Your task to perform on an android device: Open calendar and show me the third week of next month Image 0: 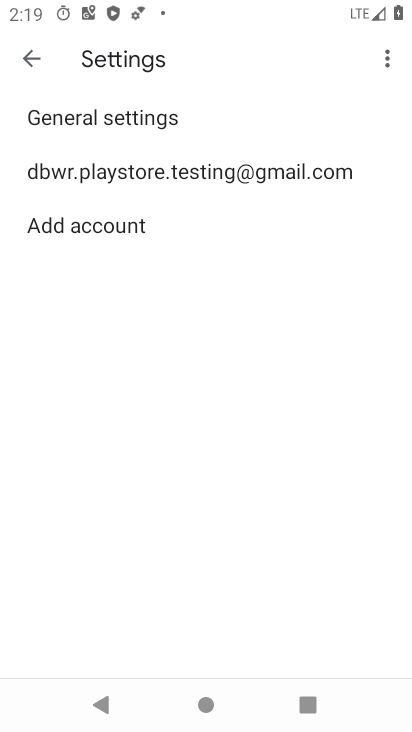
Step 0: press home button
Your task to perform on an android device: Open calendar and show me the third week of next month Image 1: 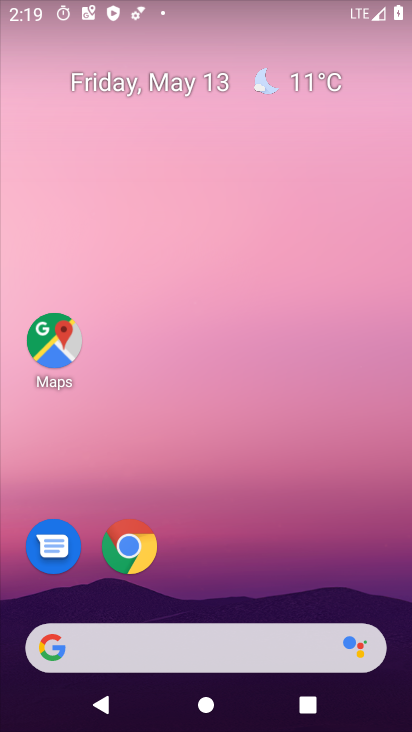
Step 1: drag from (127, 641) to (177, 168)
Your task to perform on an android device: Open calendar and show me the third week of next month Image 2: 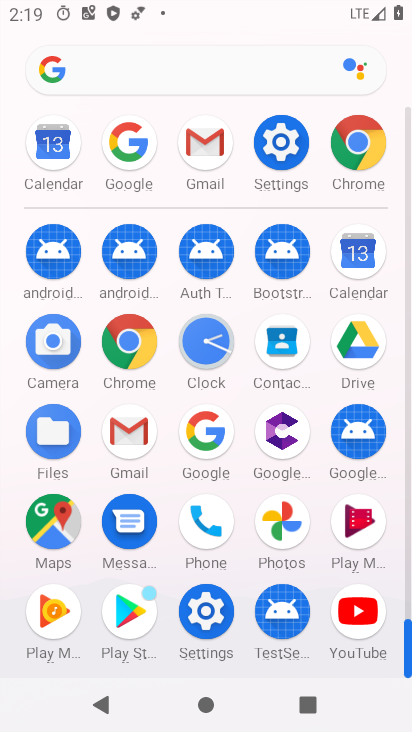
Step 2: click (356, 261)
Your task to perform on an android device: Open calendar and show me the third week of next month Image 3: 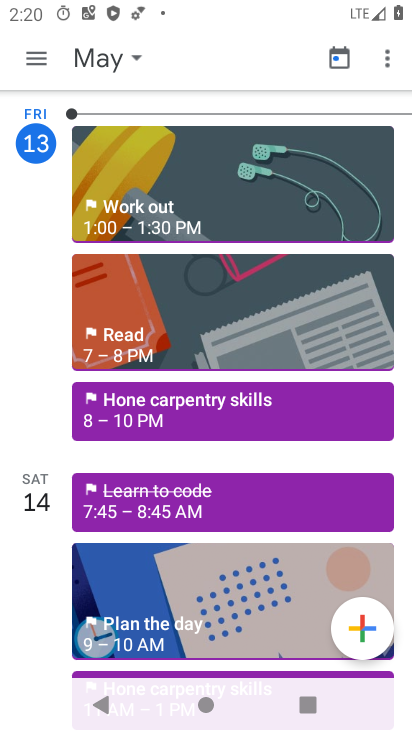
Step 3: click (107, 69)
Your task to perform on an android device: Open calendar and show me the third week of next month Image 4: 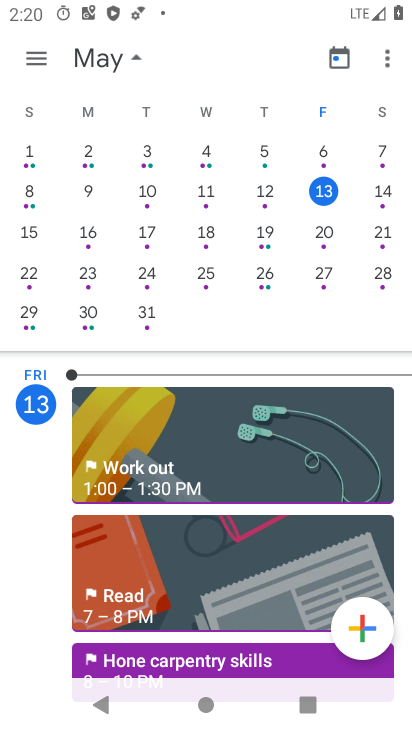
Step 4: drag from (252, 266) to (6, 256)
Your task to perform on an android device: Open calendar and show me the third week of next month Image 5: 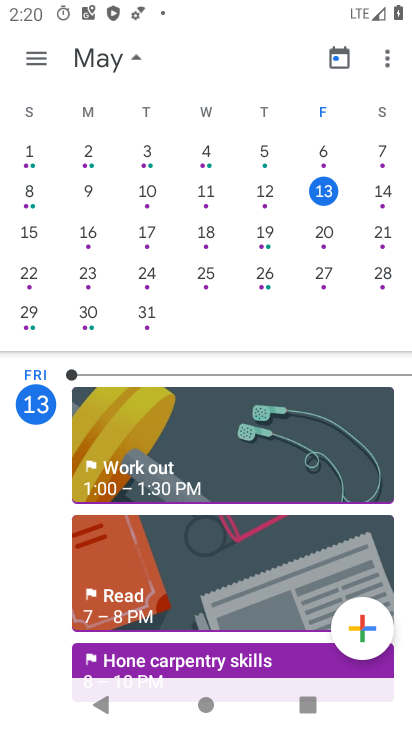
Step 5: drag from (372, 232) to (18, 308)
Your task to perform on an android device: Open calendar and show me the third week of next month Image 6: 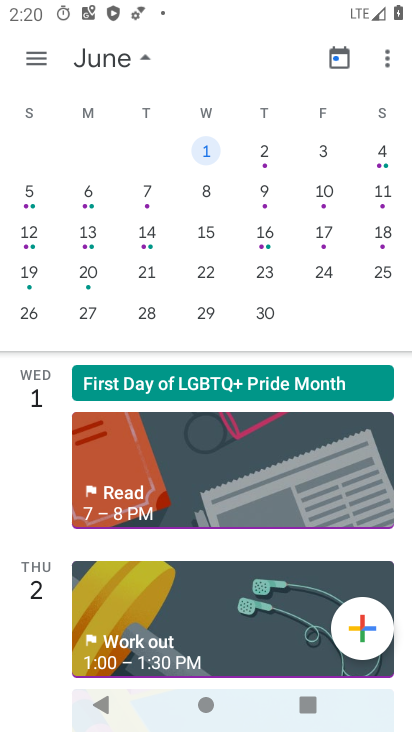
Step 6: click (39, 277)
Your task to perform on an android device: Open calendar and show me the third week of next month Image 7: 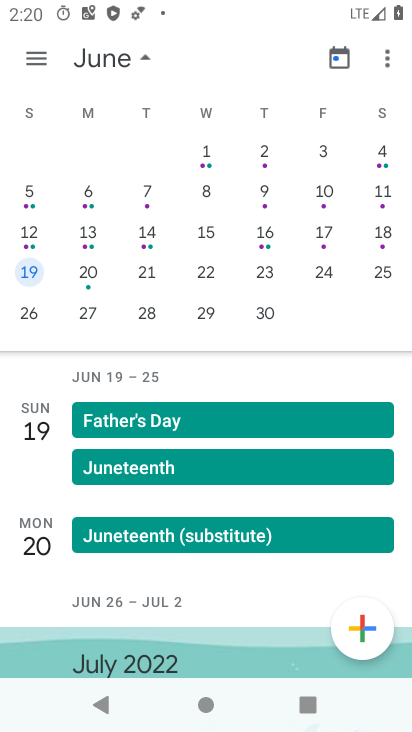
Step 7: task complete